Your task to perform on an android device: turn off improve location accuracy Image 0: 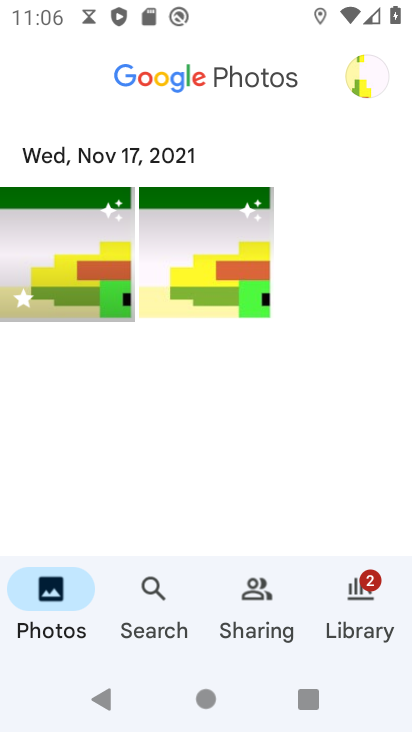
Step 0: press home button
Your task to perform on an android device: turn off improve location accuracy Image 1: 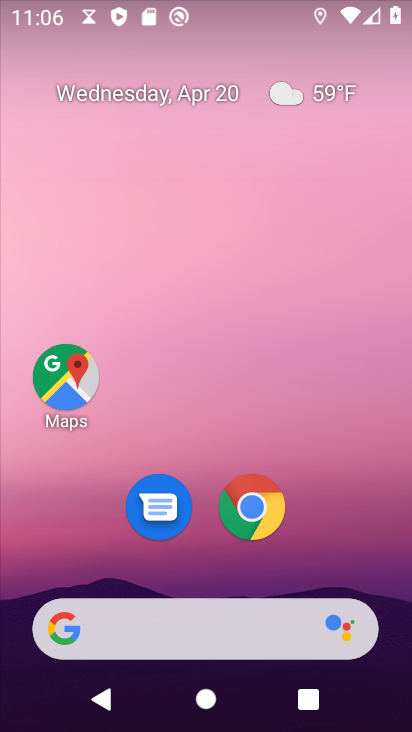
Step 1: drag from (281, 672) to (289, 168)
Your task to perform on an android device: turn off improve location accuracy Image 2: 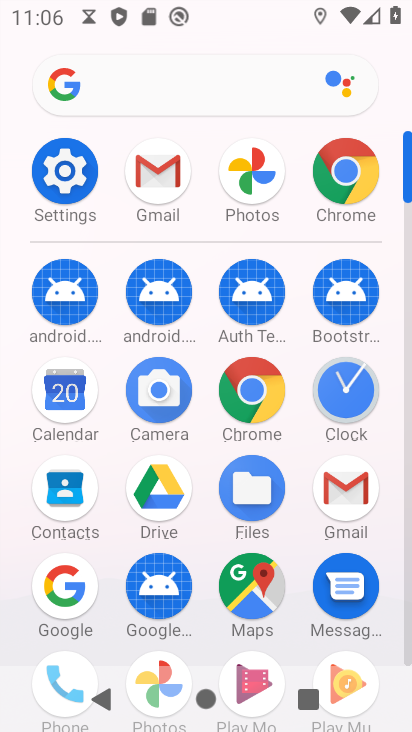
Step 2: click (68, 195)
Your task to perform on an android device: turn off improve location accuracy Image 3: 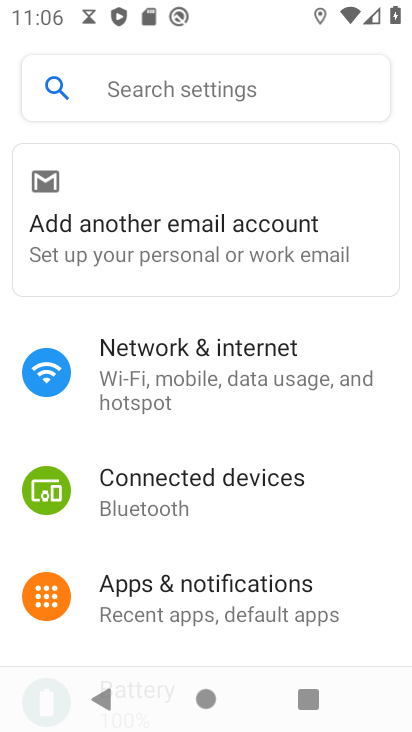
Step 3: click (176, 102)
Your task to perform on an android device: turn off improve location accuracy Image 4: 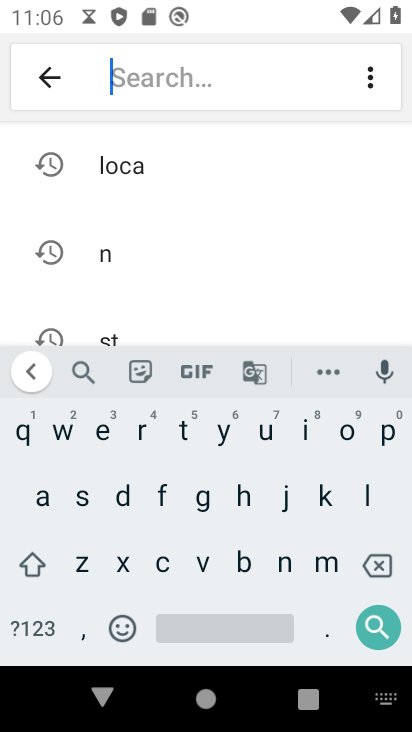
Step 4: click (138, 168)
Your task to perform on an android device: turn off improve location accuracy Image 5: 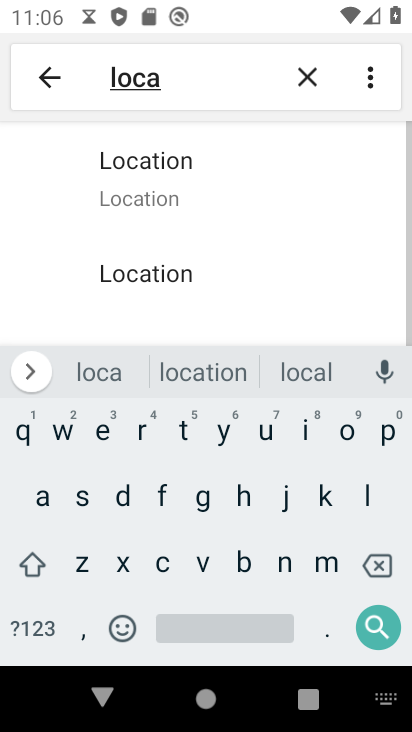
Step 5: click (138, 168)
Your task to perform on an android device: turn off improve location accuracy Image 6: 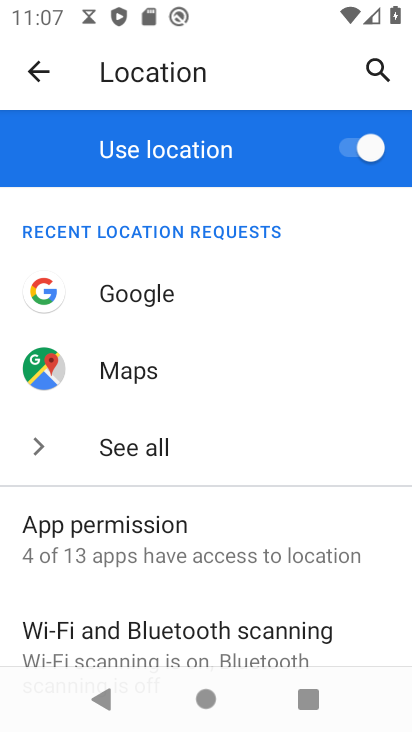
Step 6: drag from (107, 547) to (226, 185)
Your task to perform on an android device: turn off improve location accuracy Image 7: 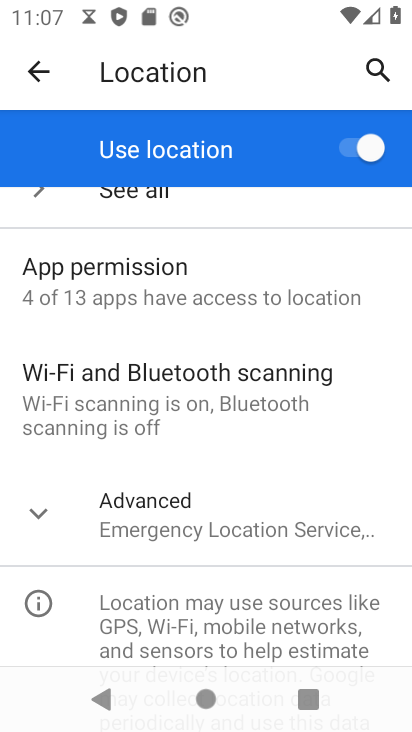
Step 7: click (118, 498)
Your task to perform on an android device: turn off improve location accuracy Image 8: 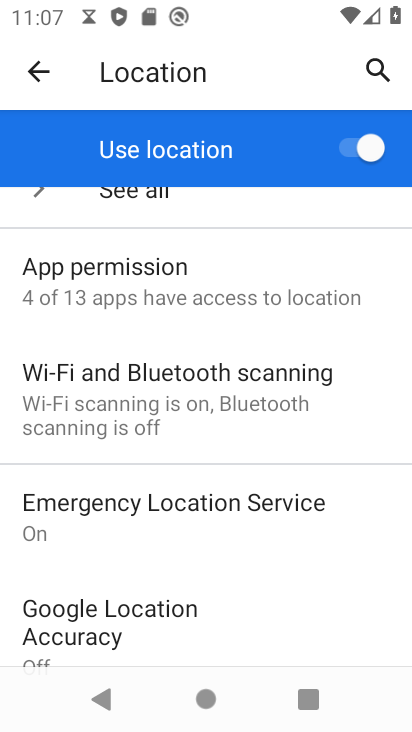
Step 8: click (118, 612)
Your task to perform on an android device: turn off improve location accuracy Image 9: 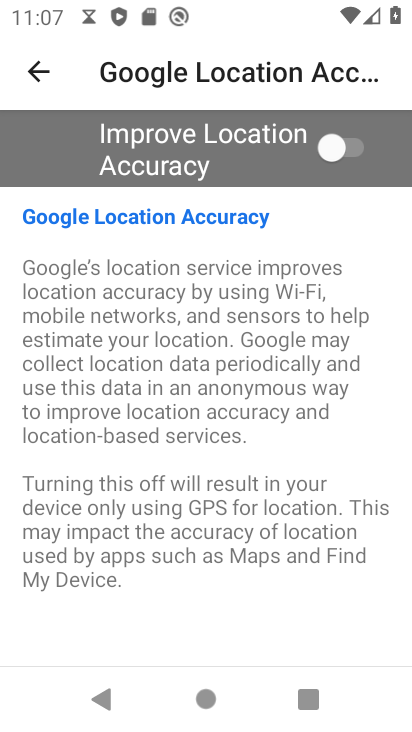
Step 9: click (337, 166)
Your task to perform on an android device: turn off improve location accuracy Image 10: 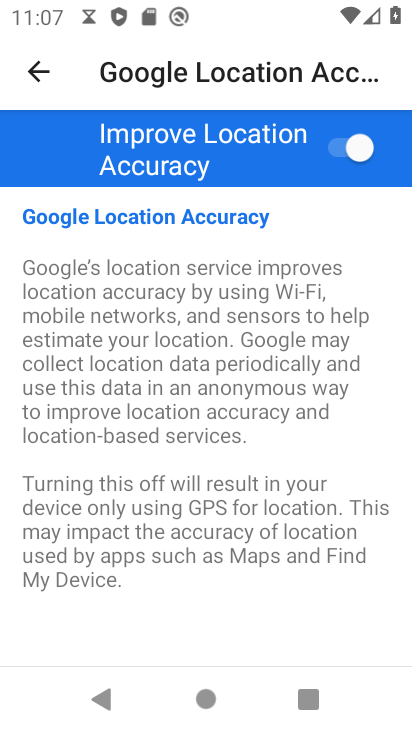
Step 10: click (337, 166)
Your task to perform on an android device: turn off improve location accuracy Image 11: 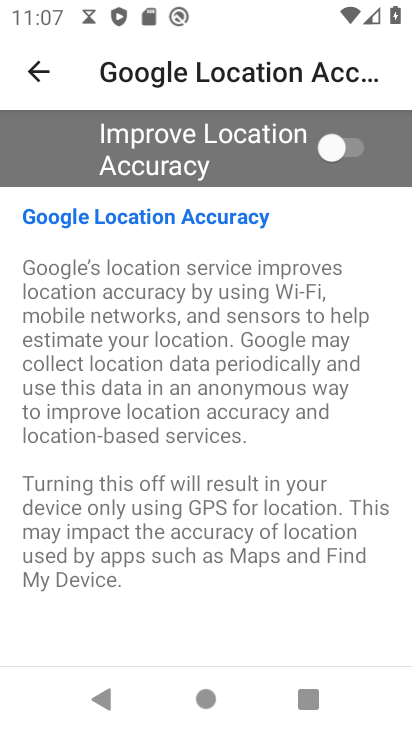
Step 11: task complete